Your task to perform on an android device: Go to Maps Image 0: 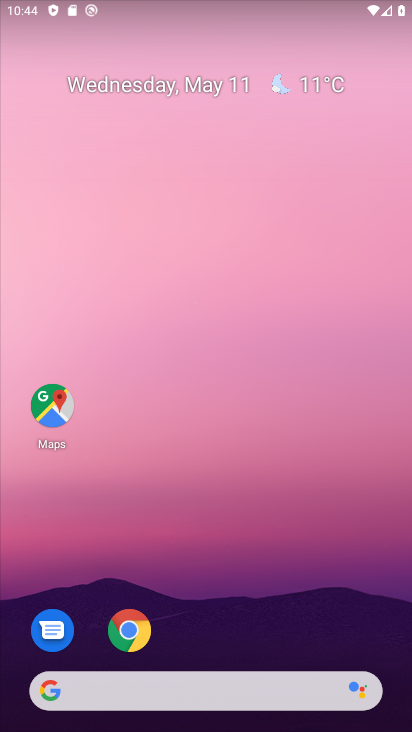
Step 0: click (309, 245)
Your task to perform on an android device: Go to Maps Image 1: 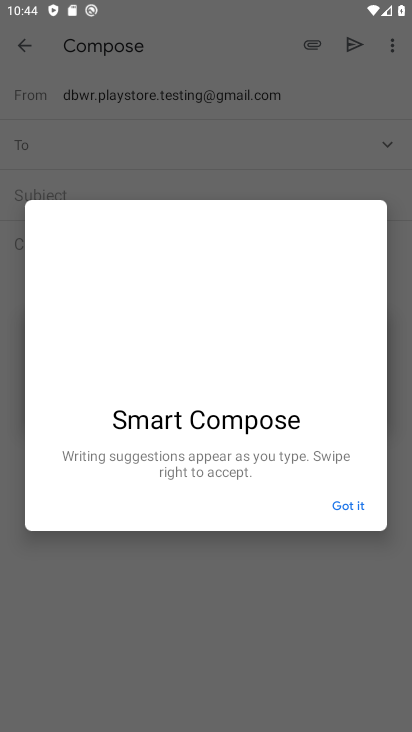
Step 1: press home button
Your task to perform on an android device: Go to Maps Image 2: 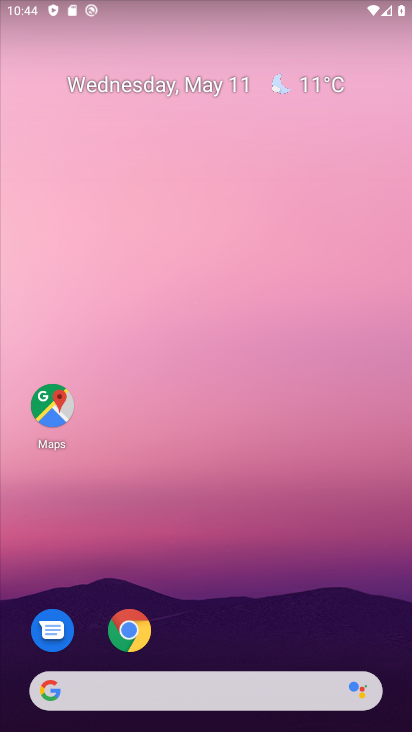
Step 2: click (44, 400)
Your task to perform on an android device: Go to Maps Image 3: 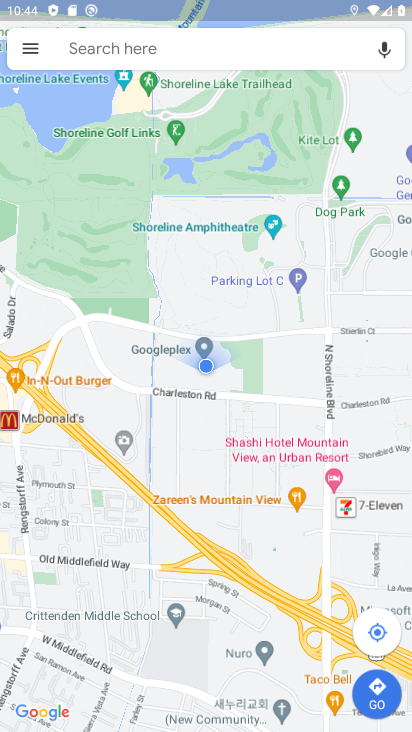
Step 3: task complete